Your task to perform on an android device: What's the weather? Image 0: 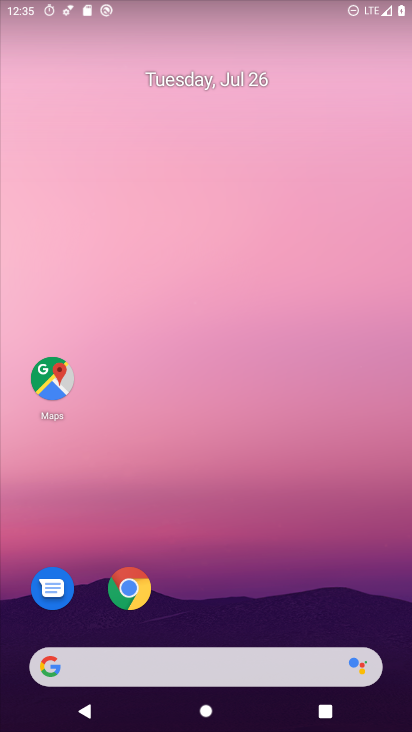
Step 0: drag from (228, 604) to (234, 59)
Your task to perform on an android device: What's the weather? Image 1: 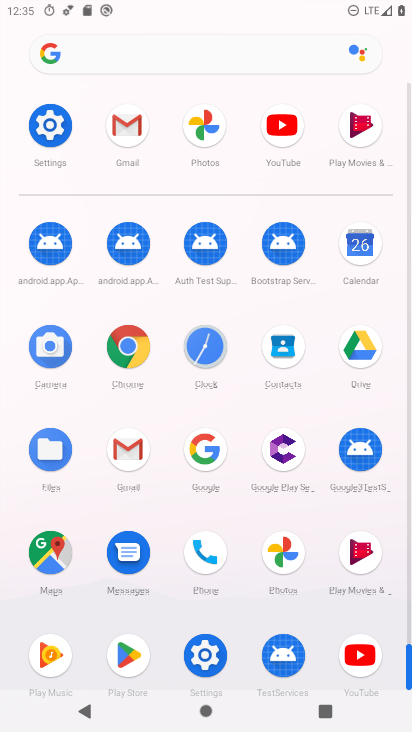
Step 1: click (137, 357)
Your task to perform on an android device: What's the weather? Image 2: 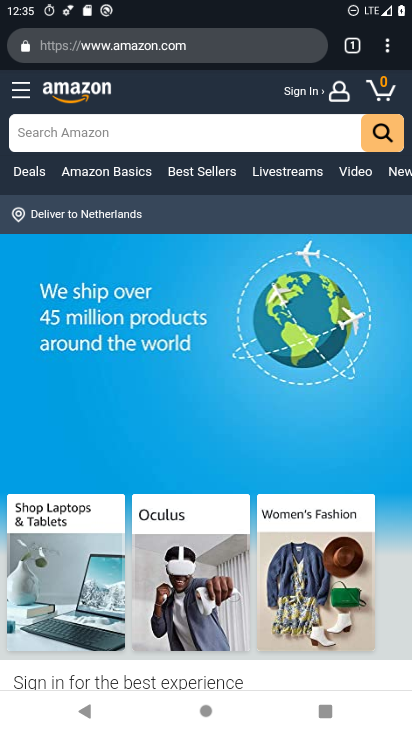
Step 2: click (335, 37)
Your task to perform on an android device: What's the weather? Image 3: 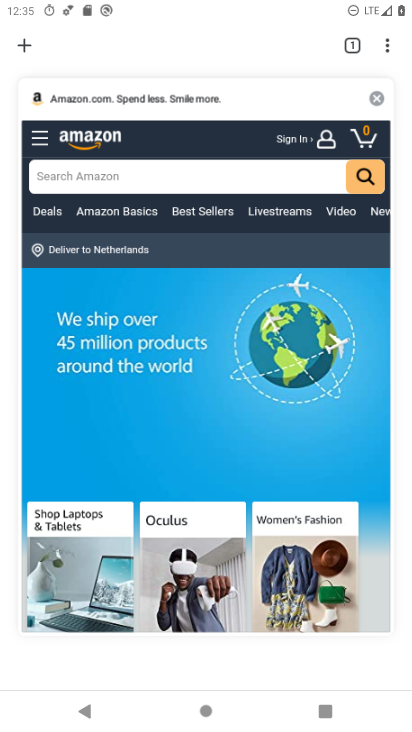
Step 3: click (23, 46)
Your task to perform on an android device: What's the weather? Image 4: 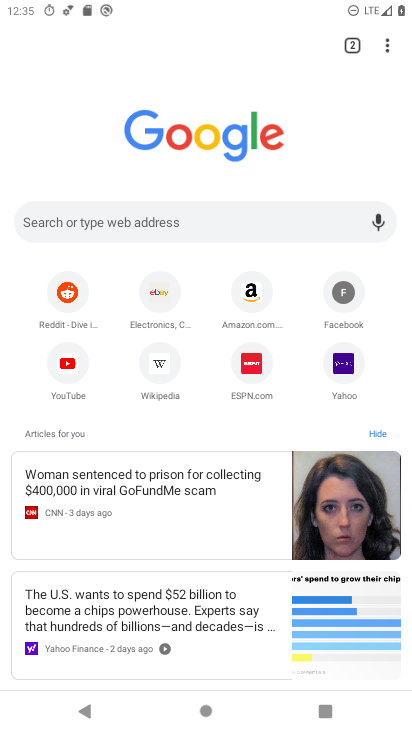
Step 4: click (165, 228)
Your task to perform on an android device: What's the weather? Image 5: 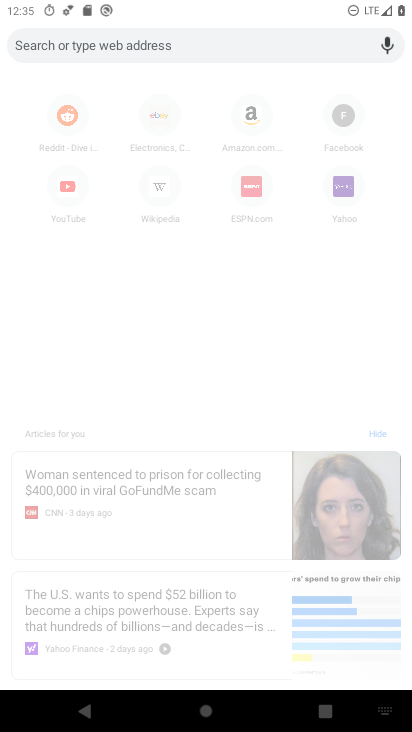
Step 5: type "weather"
Your task to perform on an android device: What's the weather? Image 6: 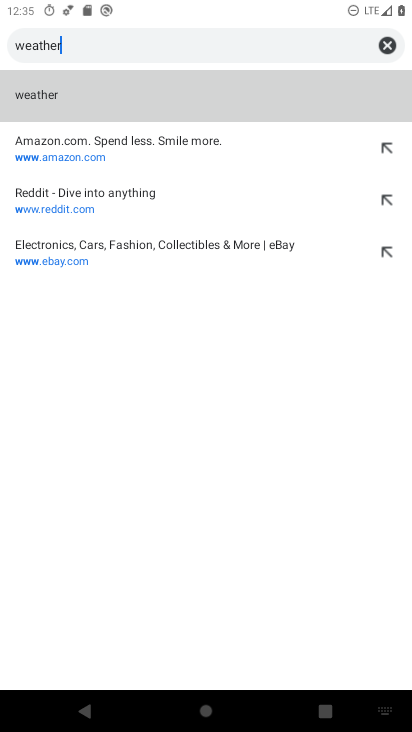
Step 6: type ""
Your task to perform on an android device: What's the weather? Image 7: 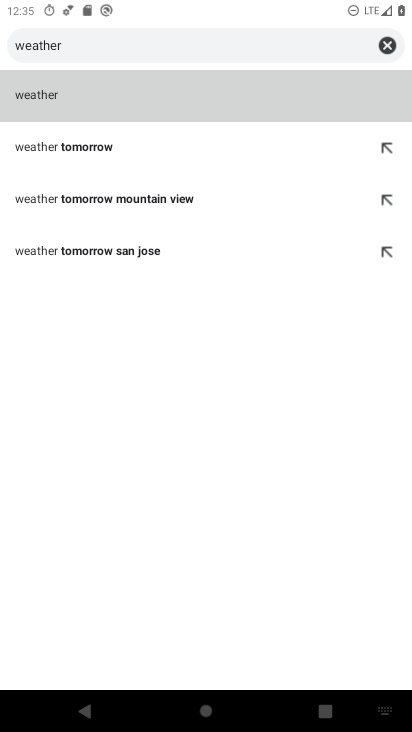
Step 7: click (166, 106)
Your task to perform on an android device: What's the weather? Image 8: 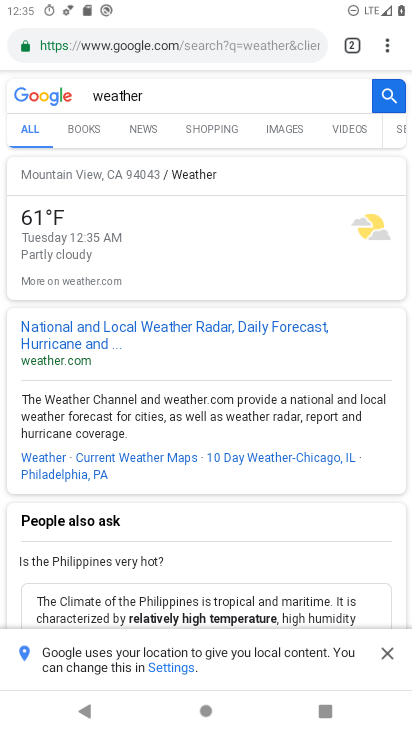
Step 8: task complete